Your task to perform on an android device: clear history in the chrome app Image 0: 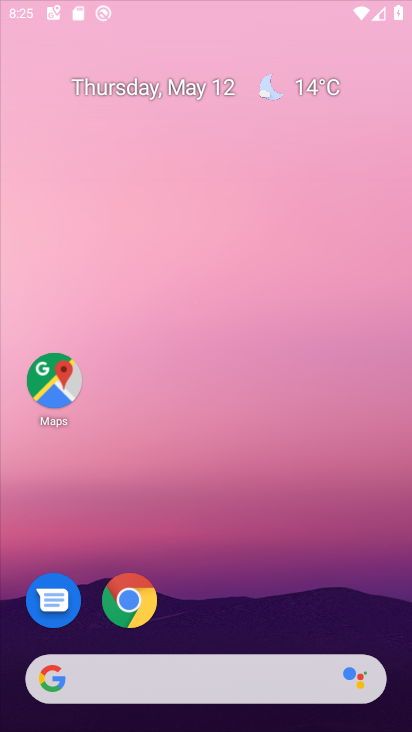
Step 0: click (222, 132)
Your task to perform on an android device: clear history in the chrome app Image 1: 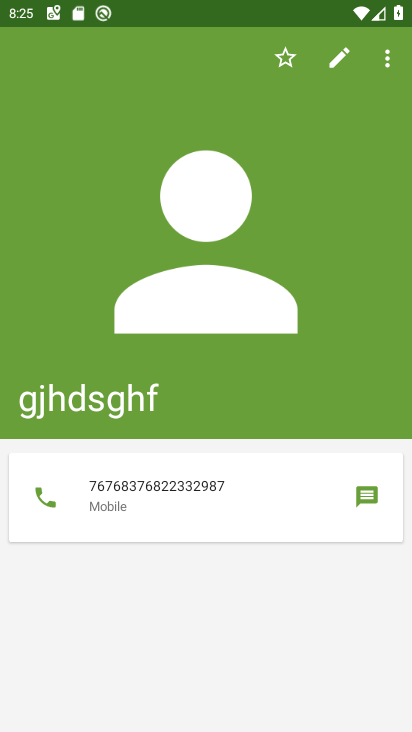
Step 1: press home button
Your task to perform on an android device: clear history in the chrome app Image 2: 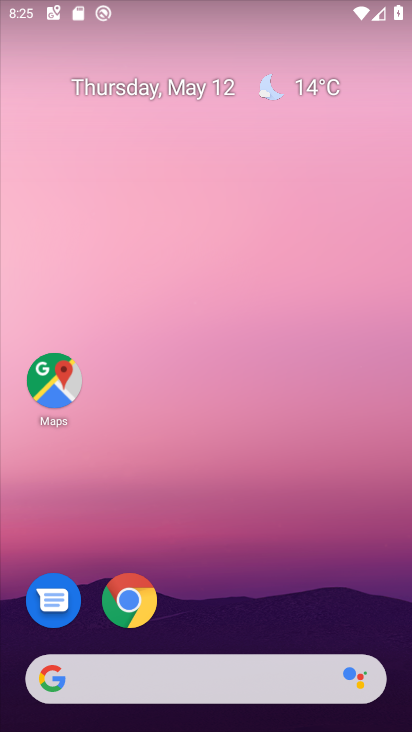
Step 2: drag from (327, 657) to (80, 24)
Your task to perform on an android device: clear history in the chrome app Image 3: 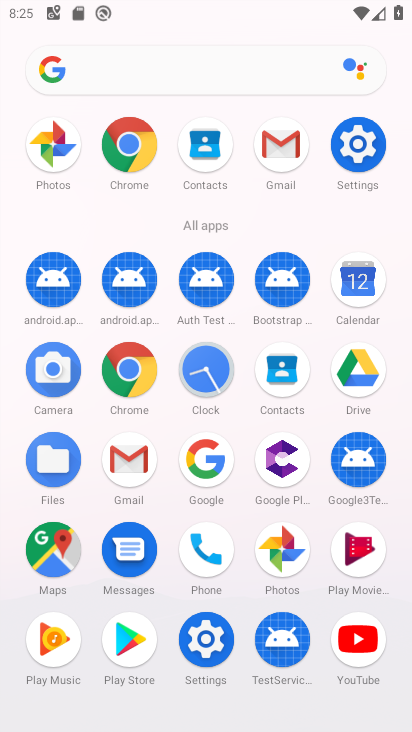
Step 3: click (124, 146)
Your task to perform on an android device: clear history in the chrome app Image 4: 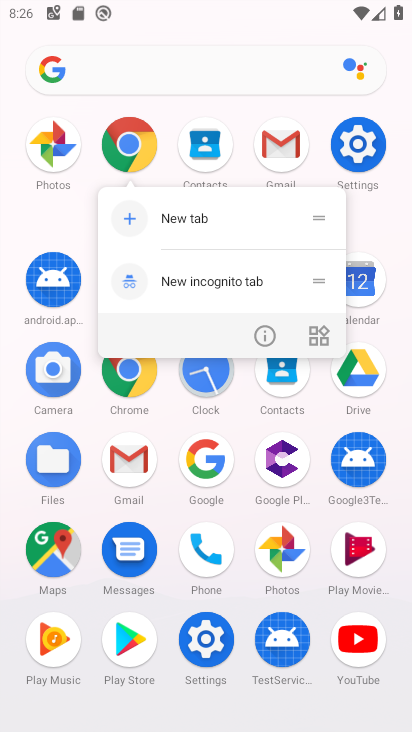
Step 4: click (127, 150)
Your task to perform on an android device: clear history in the chrome app Image 5: 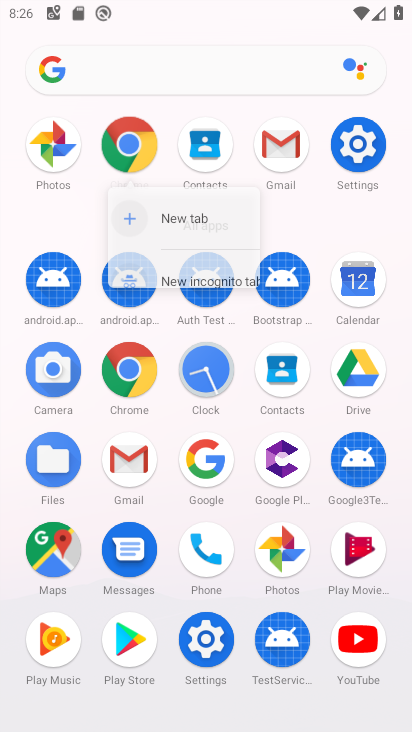
Step 5: click (127, 150)
Your task to perform on an android device: clear history in the chrome app Image 6: 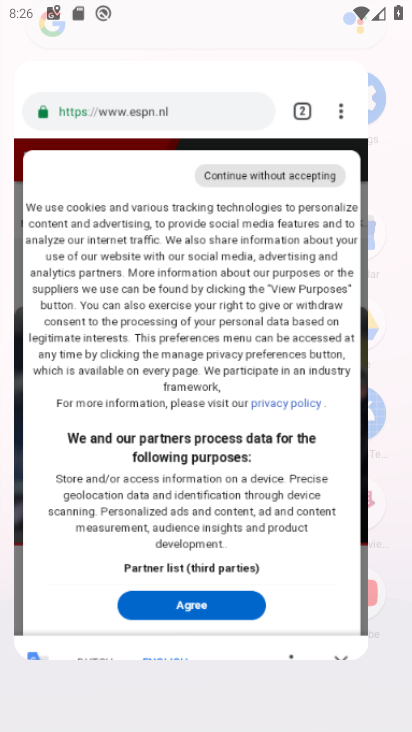
Step 6: click (127, 150)
Your task to perform on an android device: clear history in the chrome app Image 7: 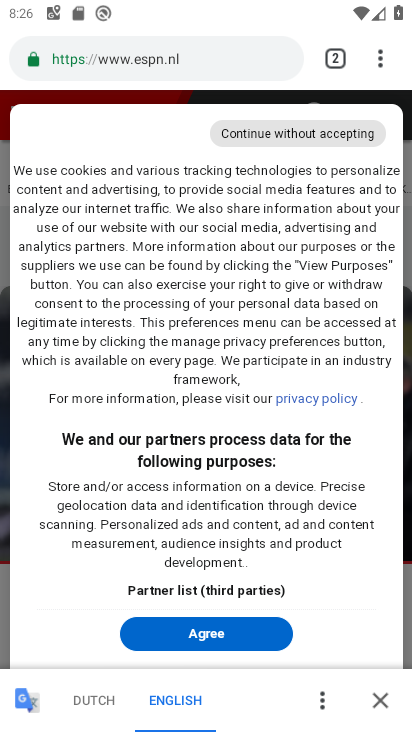
Step 7: drag from (374, 58) to (155, 654)
Your task to perform on an android device: clear history in the chrome app Image 8: 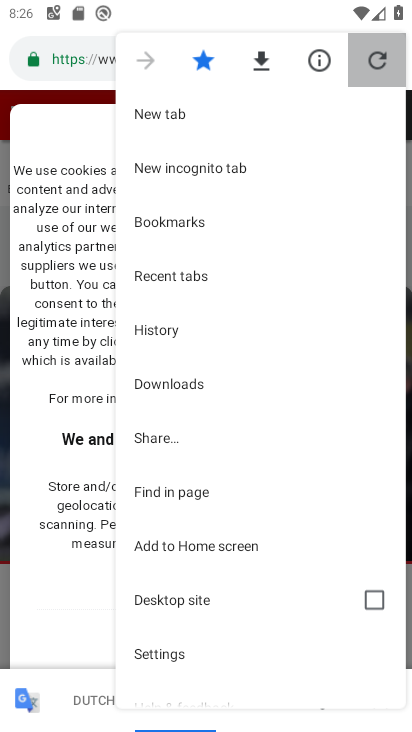
Step 8: drag from (375, 61) to (160, 640)
Your task to perform on an android device: clear history in the chrome app Image 9: 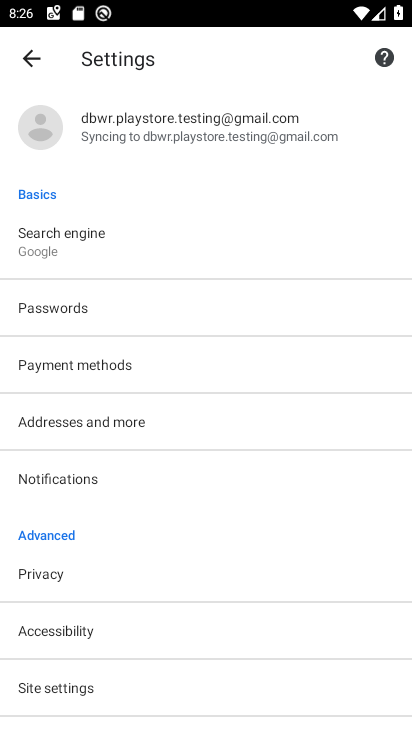
Step 9: drag from (86, 562) to (11, 212)
Your task to perform on an android device: clear history in the chrome app Image 10: 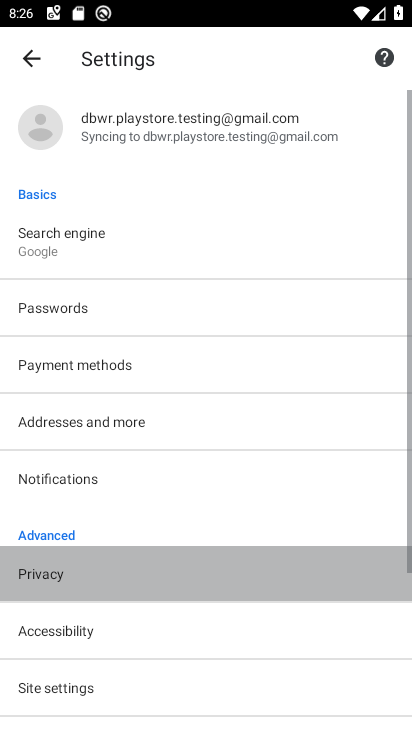
Step 10: drag from (61, 436) to (40, 67)
Your task to perform on an android device: clear history in the chrome app Image 11: 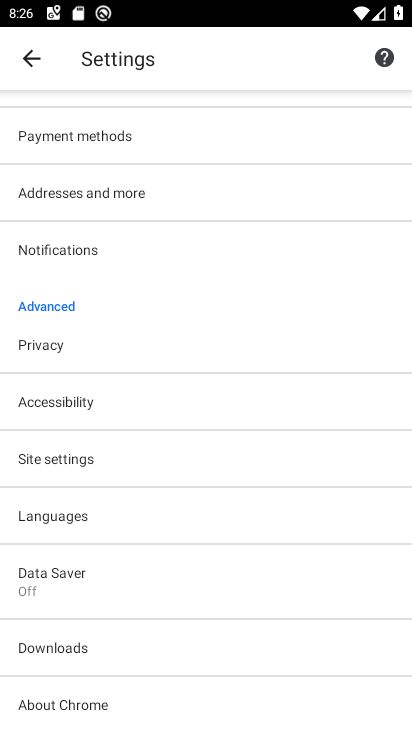
Step 11: click (29, 59)
Your task to perform on an android device: clear history in the chrome app Image 12: 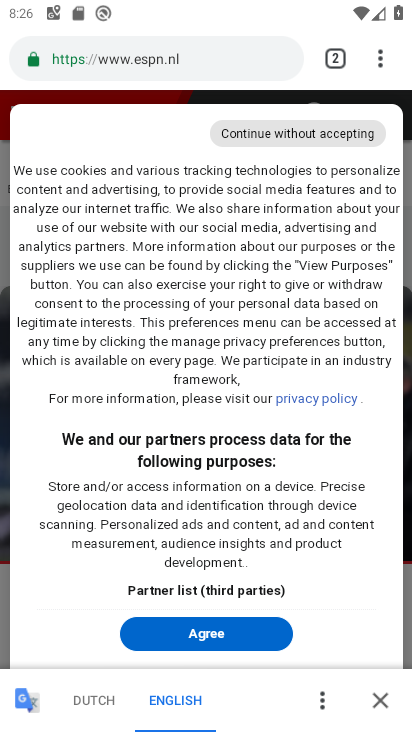
Step 12: drag from (378, 60) to (154, 331)
Your task to perform on an android device: clear history in the chrome app Image 13: 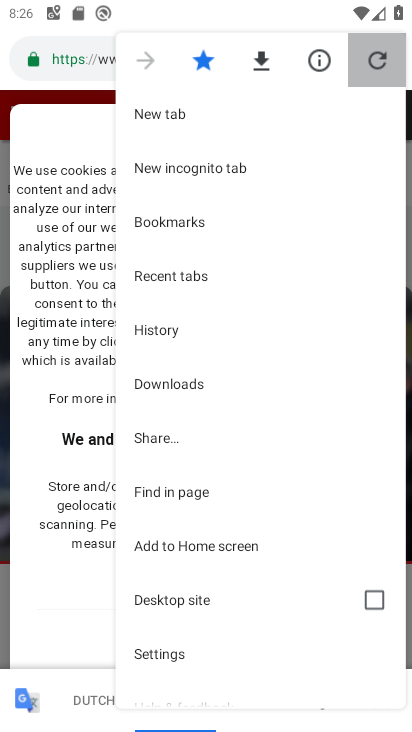
Step 13: click (155, 330)
Your task to perform on an android device: clear history in the chrome app Image 14: 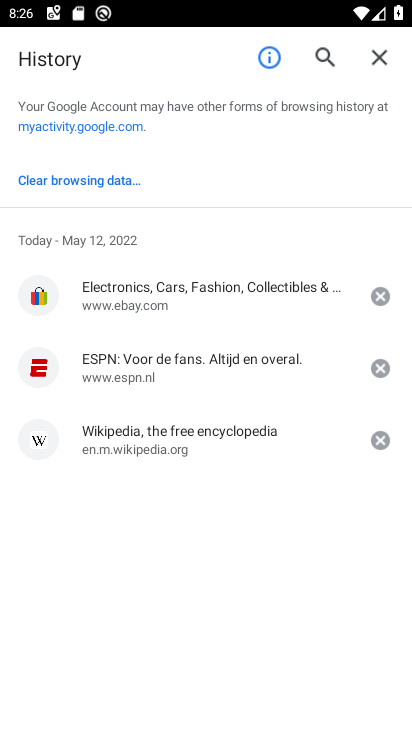
Step 14: click (378, 302)
Your task to perform on an android device: clear history in the chrome app Image 15: 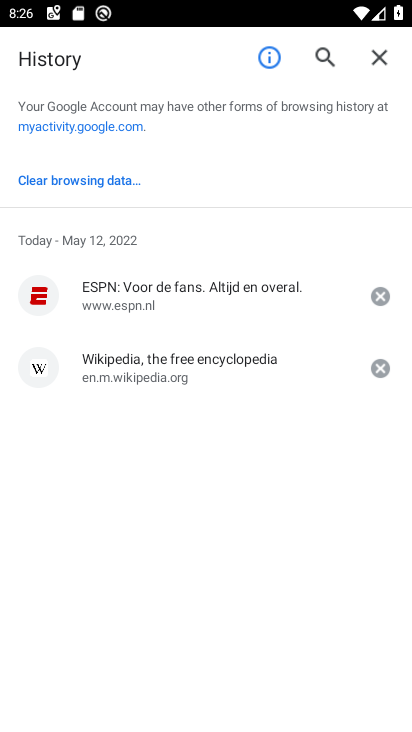
Step 15: task complete